Your task to perform on an android device: set an alarm Image 0: 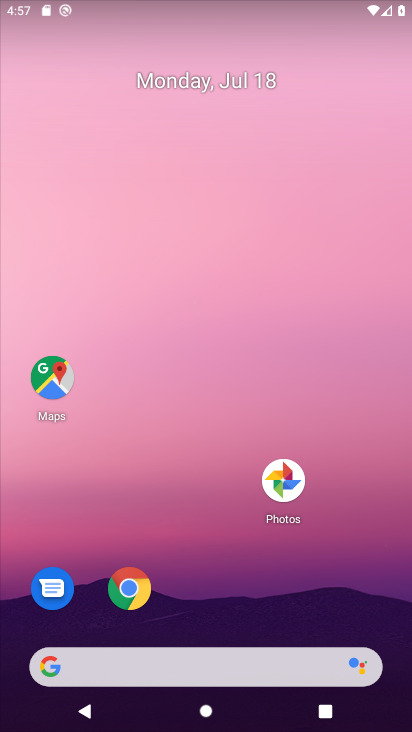
Step 0: drag from (174, 404) to (137, 126)
Your task to perform on an android device: set an alarm Image 1: 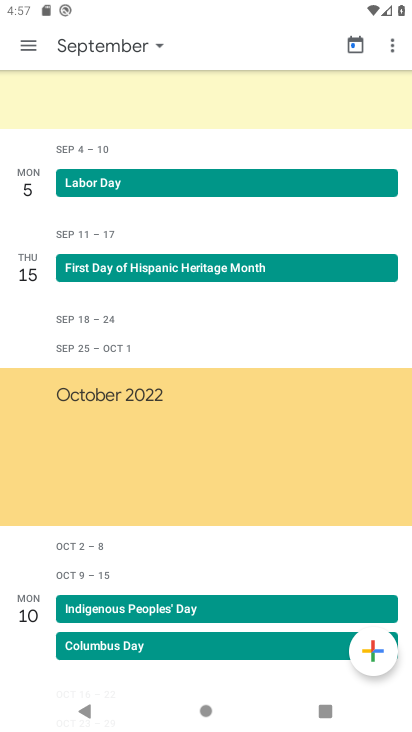
Step 1: press home button
Your task to perform on an android device: set an alarm Image 2: 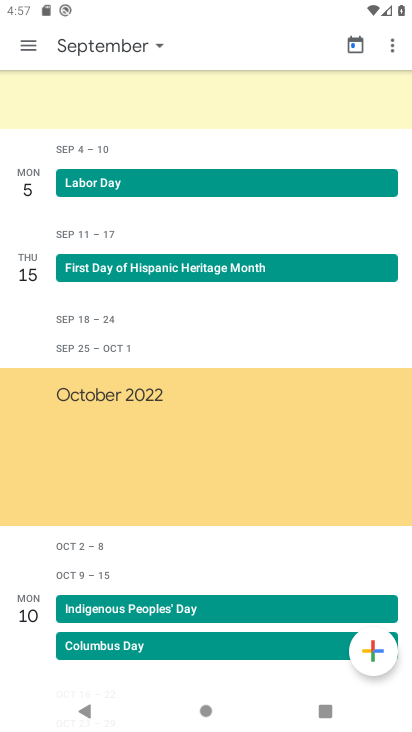
Step 2: press home button
Your task to perform on an android device: set an alarm Image 3: 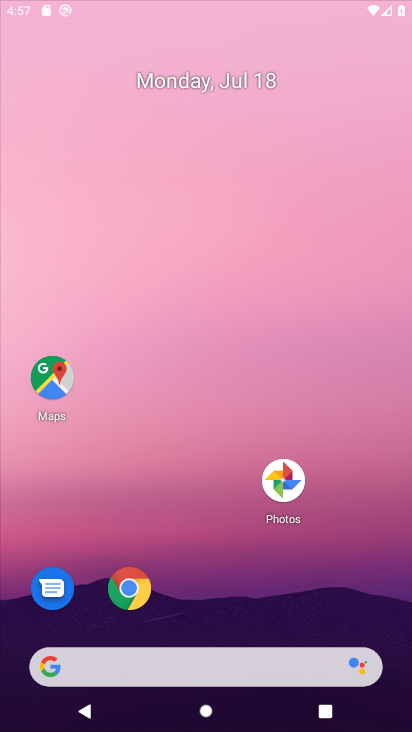
Step 3: press back button
Your task to perform on an android device: set an alarm Image 4: 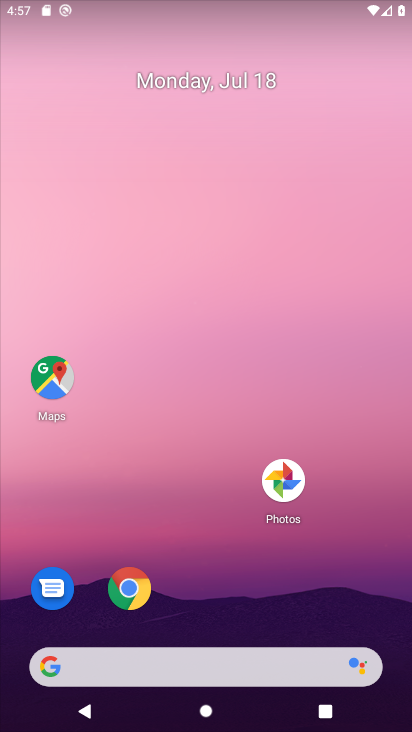
Step 4: drag from (212, 348) to (181, 137)
Your task to perform on an android device: set an alarm Image 5: 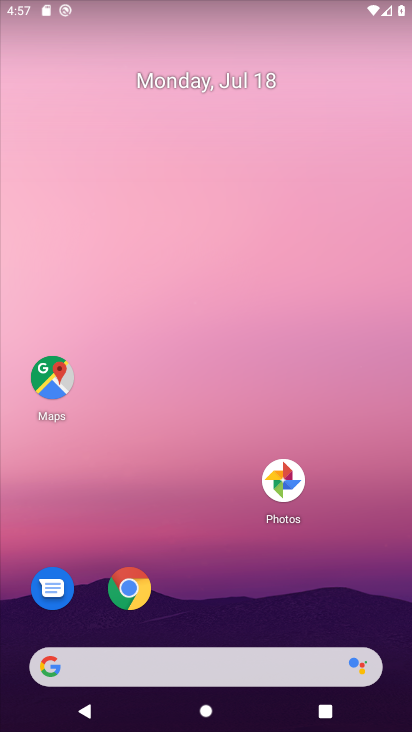
Step 5: drag from (219, 499) to (194, 68)
Your task to perform on an android device: set an alarm Image 6: 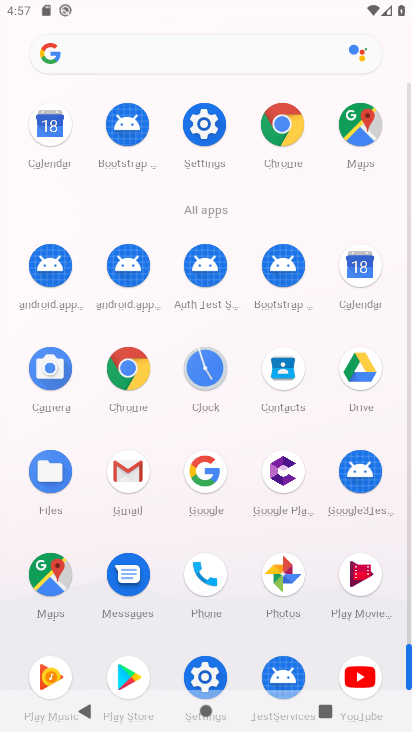
Step 6: drag from (164, 287) to (215, 163)
Your task to perform on an android device: set an alarm Image 7: 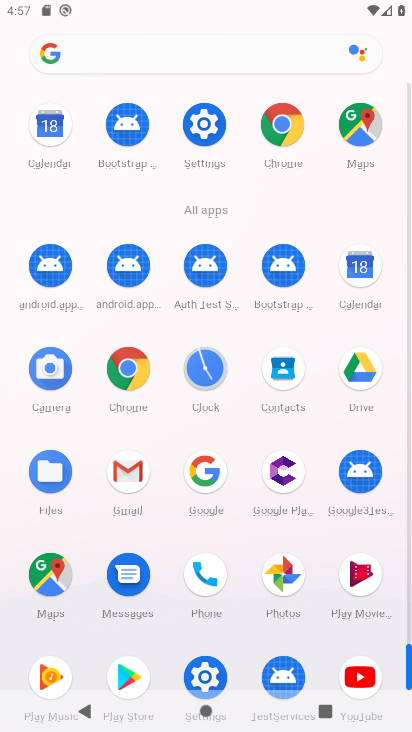
Step 7: click (206, 157)
Your task to perform on an android device: set an alarm Image 8: 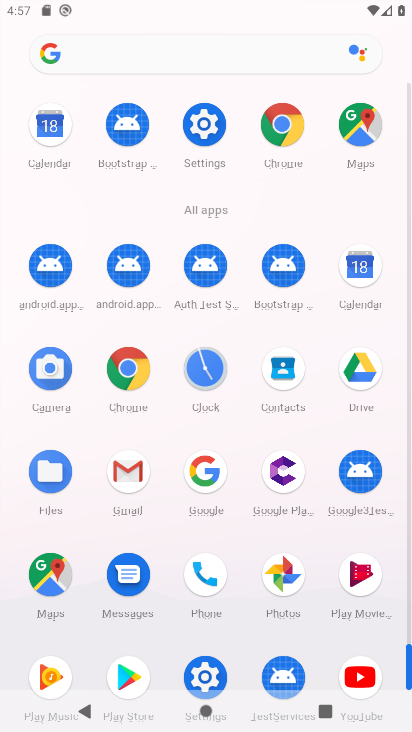
Step 8: click (193, 97)
Your task to perform on an android device: set an alarm Image 9: 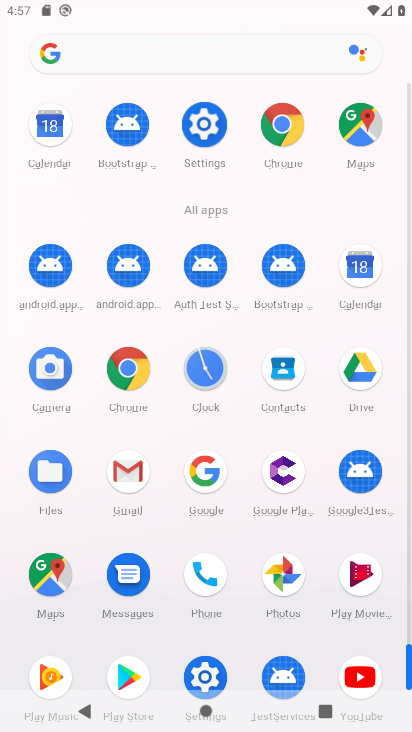
Step 9: click (202, 118)
Your task to perform on an android device: set an alarm Image 10: 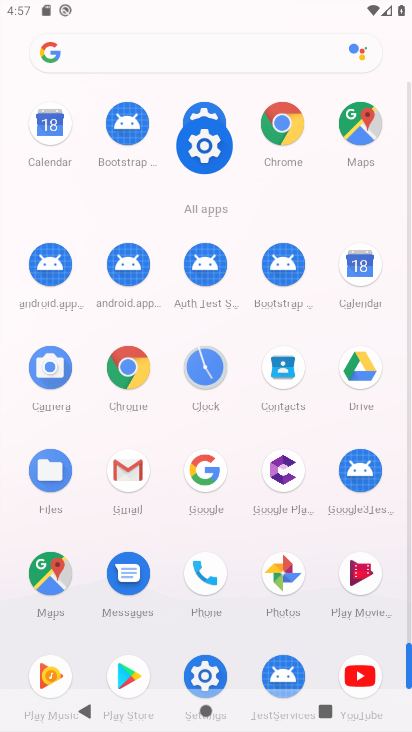
Step 10: click (203, 117)
Your task to perform on an android device: set an alarm Image 11: 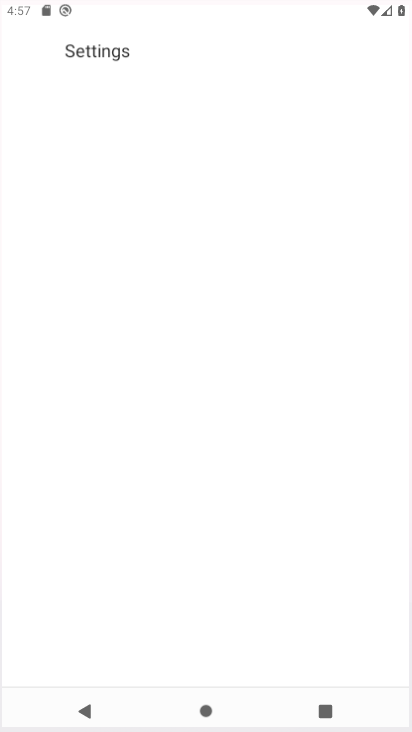
Step 11: click (203, 117)
Your task to perform on an android device: set an alarm Image 12: 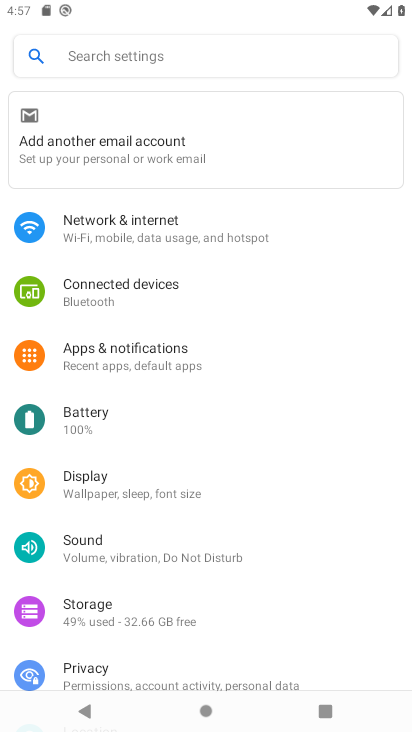
Step 12: press back button
Your task to perform on an android device: set an alarm Image 13: 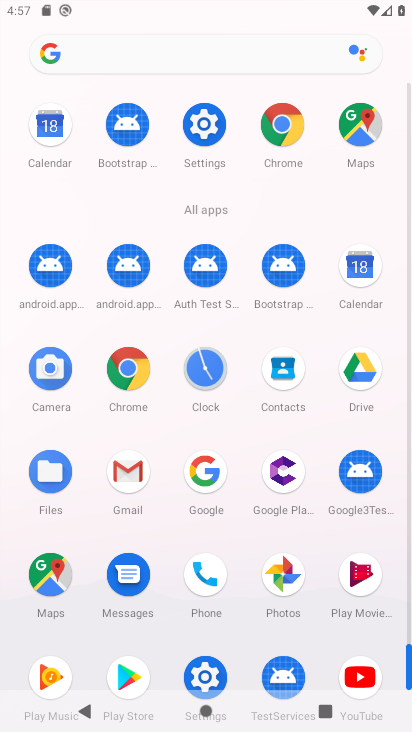
Step 13: click (199, 370)
Your task to perform on an android device: set an alarm Image 14: 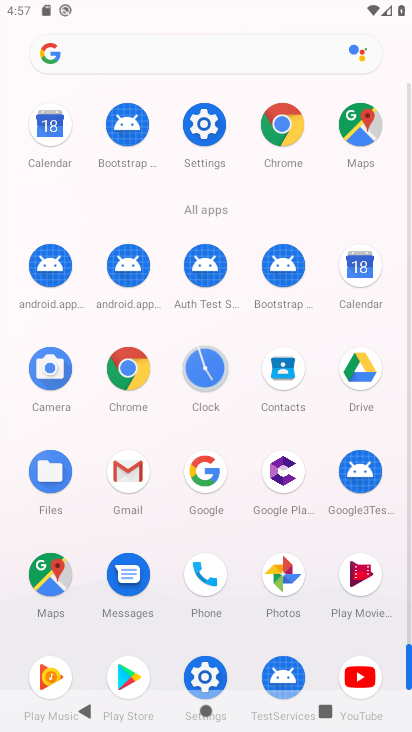
Step 14: click (200, 370)
Your task to perform on an android device: set an alarm Image 15: 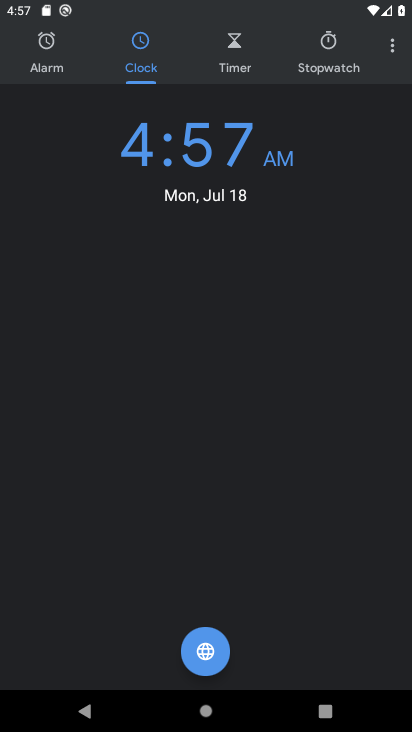
Step 15: click (47, 54)
Your task to perform on an android device: set an alarm Image 16: 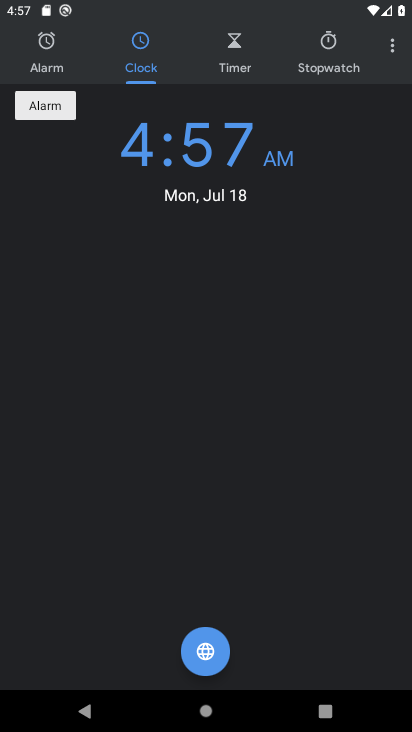
Step 16: click (45, 56)
Your task to perform on an android device: set an alarm Image 17: 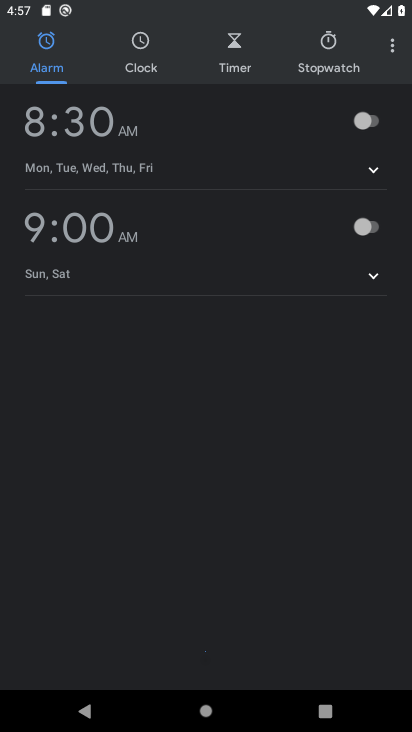
Step 17: click (44, 57)
Your task to perform on an android device: set an alarm Image 18: 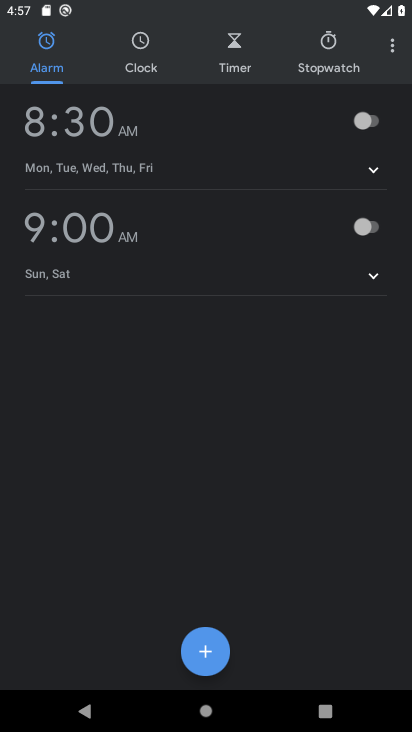
Step 18: click (371, 107)
Your task to perform on an android device: set an alarm Image 19: 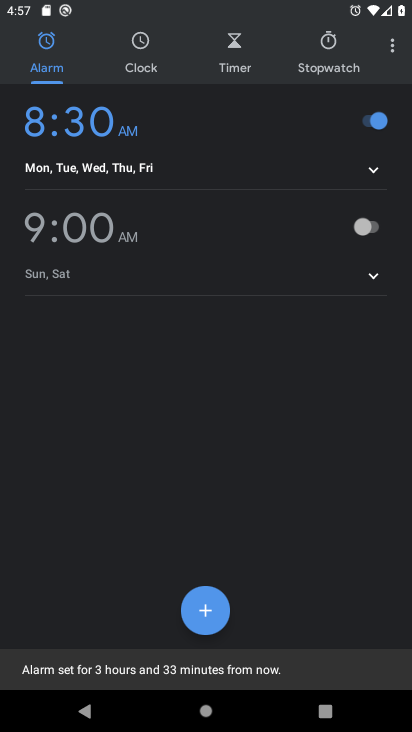
Step 19: task complete